Your task to perform on an android device: turn on the 24-hour format for clock Image 0: 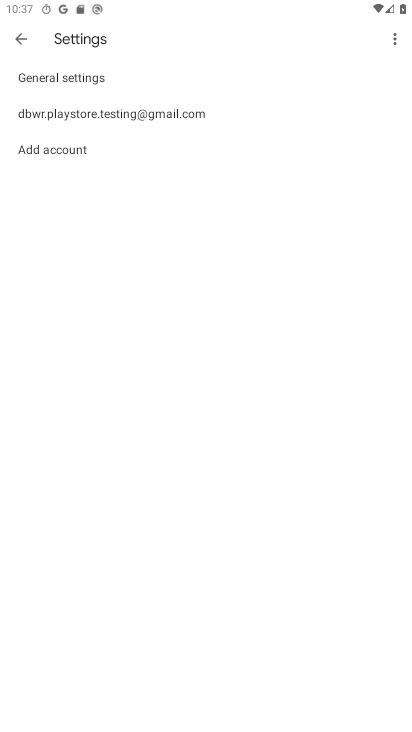
Step 0: press home button
Your task to perform on an android device: turn on the 24-hour format for clock Image 1: 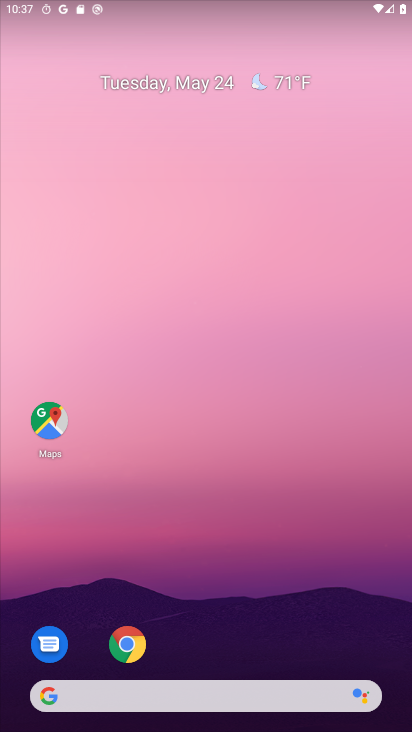
Step 1: drag from (266, 582) to (212, 109)
Your task to perform on an android device: turn on the 24-hour format for clock Image 2: 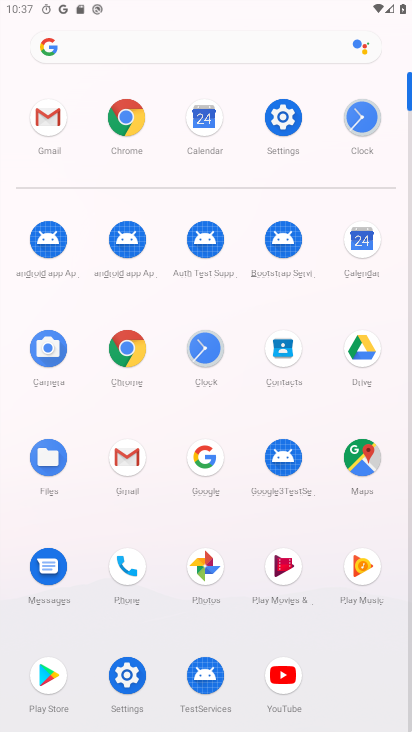
Step 2: click (371, 103)
Your task to perform on an android device: turn on the 24-hour format for clock Image 3: 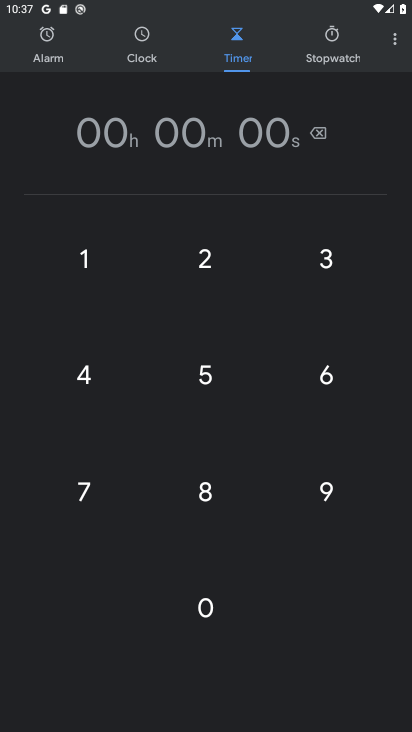
Step 3: click (396, 46)
Your task to perform on an android device: turn on the 24-hour format for clock Image 4: 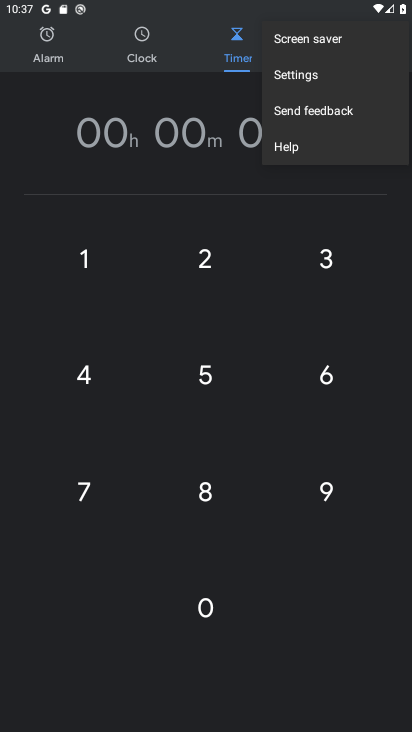
Step 4: click (314, 83)
Your task to perform on an android device: turn on the 24-hour format for clock Image 5: 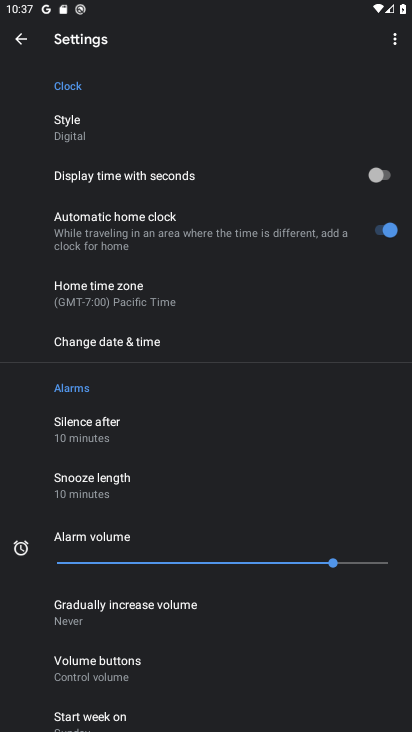
Step 5: click (100, 342)
Your task to perform on an android device: turn on the 24-hour format for clock Image 6: 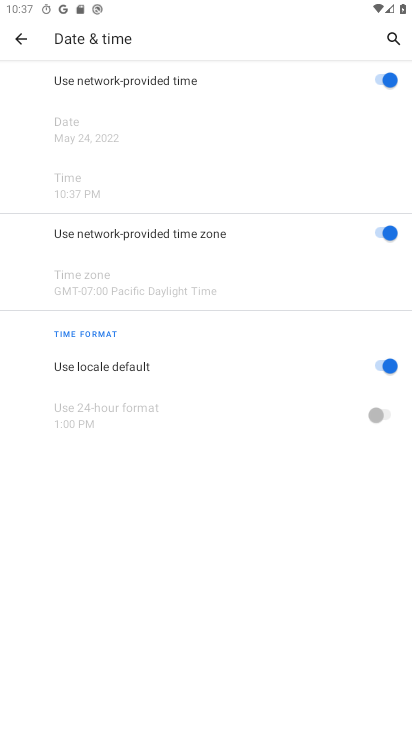
Step 6: click (377, 409)
Your task to perform on an android device: turn on the 24-hour format for clock Image 7: 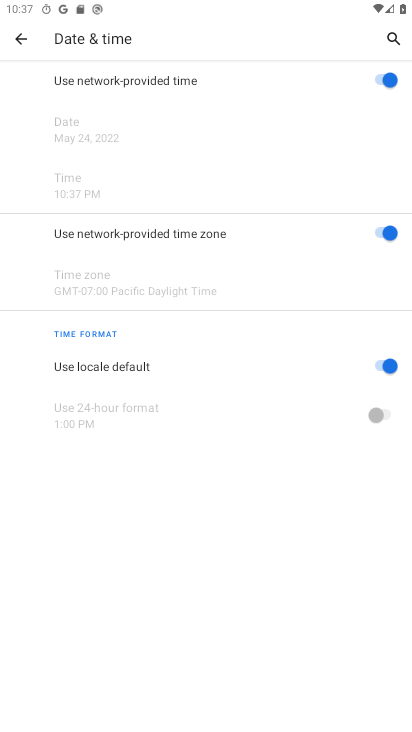
Step 7: click (391, 359)
Your task to perform on an android device: turn on the 24-hour format for clock Image 8: 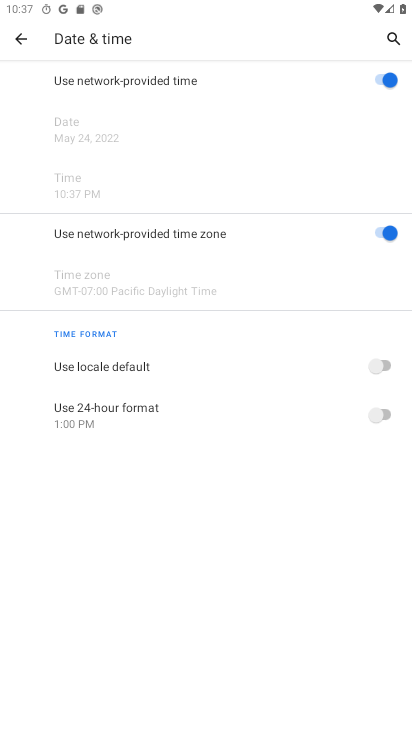
Step 8: click (378, 417)
Your task to perform on an android device: turn on the 24-hour format for clock Image 9: 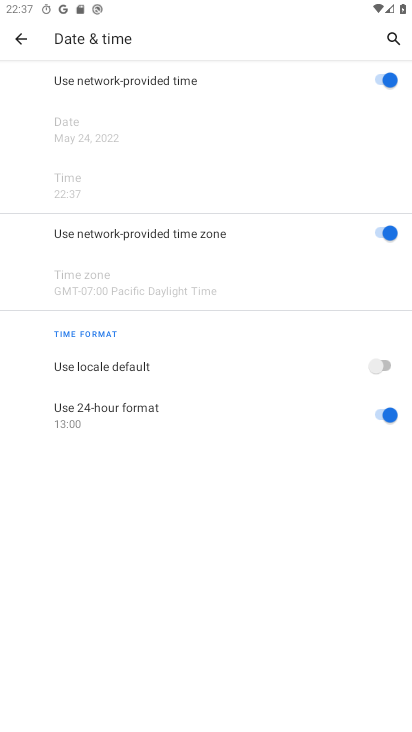
Step 9: task complete